Your task to perform on an android device: open sync settings in chrome Image 0: 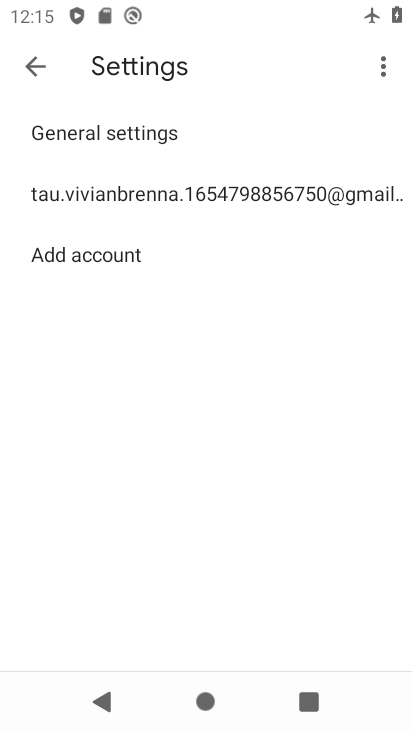
Step 0: press home button
Your task to perform on an android device: open sync settings in chrome Image 1: 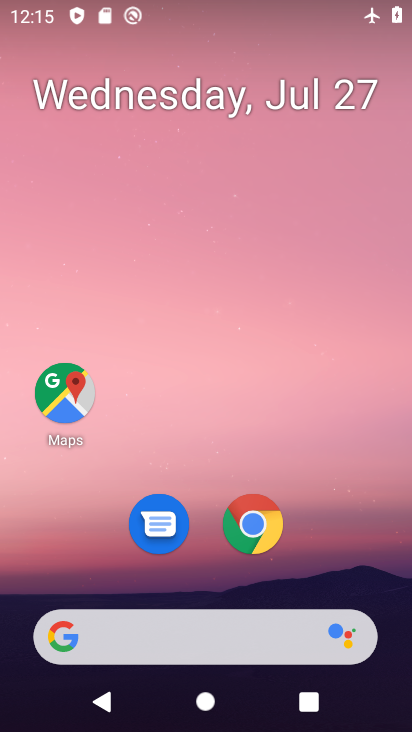
Step 1: click (262, 529)
Your task to perform on an android device: open sync settings in chrome Image 2: 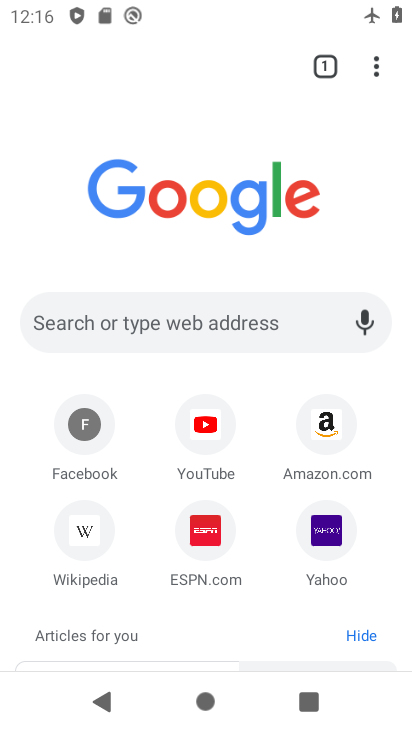
Step 2: click (378, 73)
Your task to perform on an android device: open sync settings in chrome Image 3: 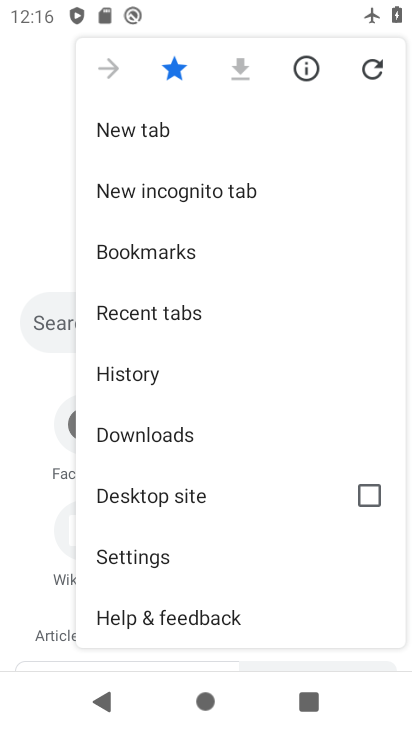
Step 3: click (159, 554)
Your task to perform on an android device: open sync settings in chrome Image 4: 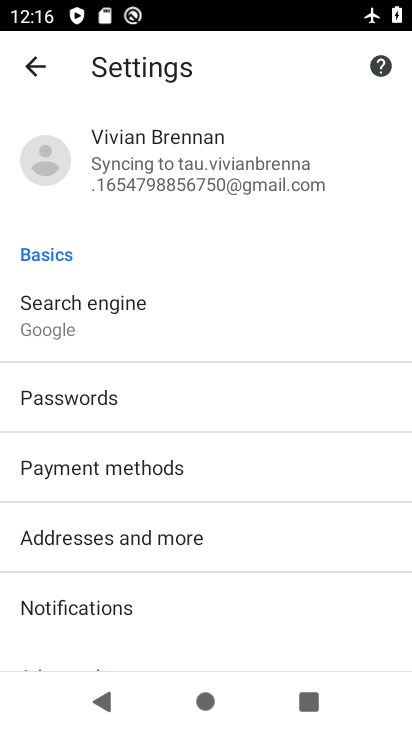
Step 4: click (202, 157)
Your task to perform on an android device: open sync settings in chrome Image 5: 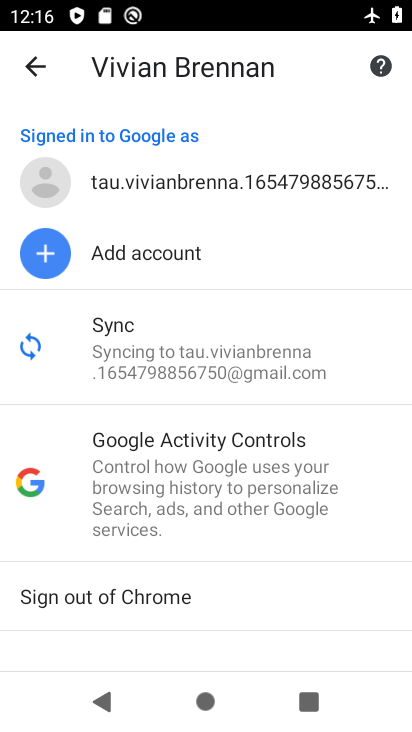
Step 5: click (188, 350)
Your task to perform on an android device: open sync settings in chrome Image 6: 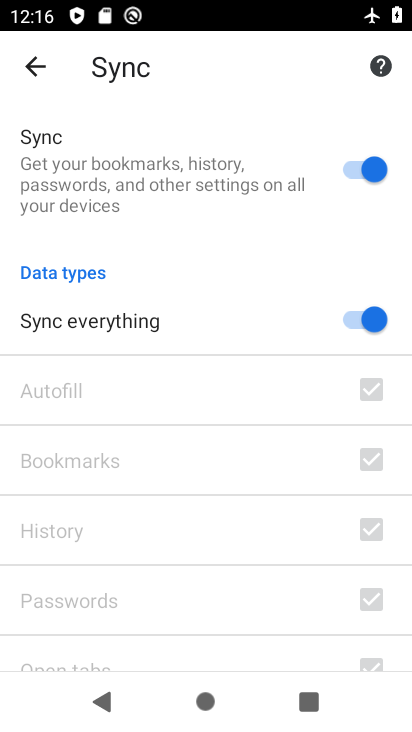
Step 6: task complete